Your task to perform on an android device: Set the phone to "Do not disturb". Image 0: 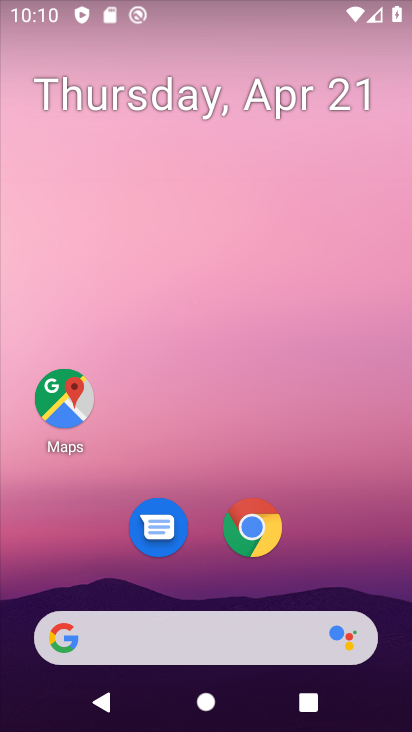
Step 0: drag from (210, 679) to (207, 108)
Your task to perform on an android device: Set the phone to "Do not disturb". Image 1: 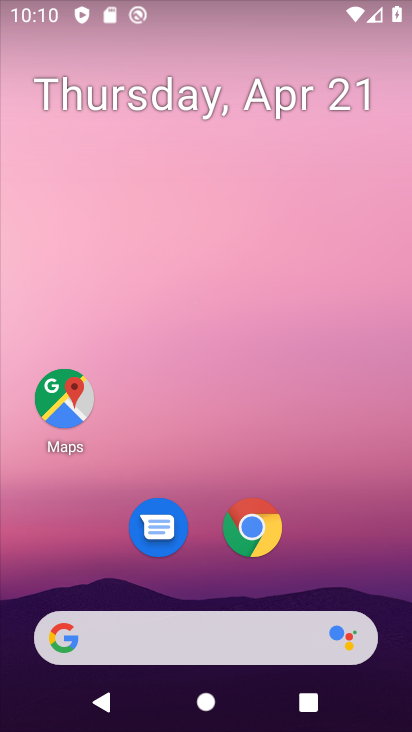
Step 1: drag from (215, 708) to (216, 126)
Your task to perform on an android device: Set the phone to "Do not disturb". Image 2: 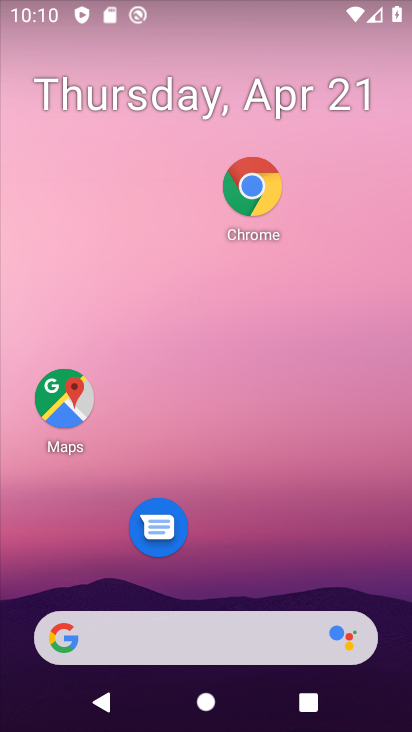
Step 2: drag from (208, 722) to (198, 219)
Your task to perform on an android device: Set the phone to "Do not disturb". Image 3: 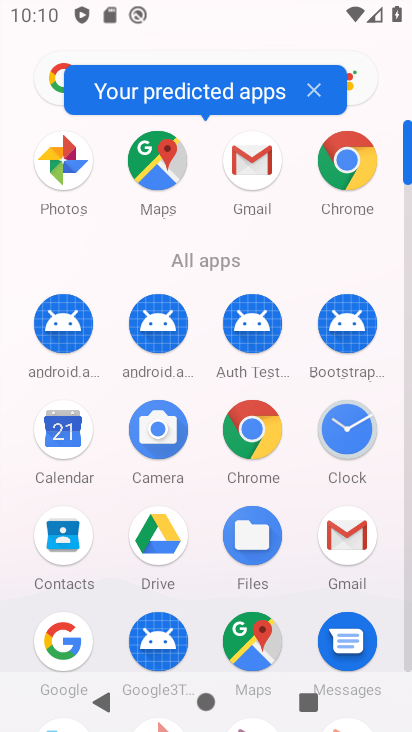
Step 3: drag from (298, 627) to (294, 337)
Your task to perform on an android device: Set the phone to "Do not disturb". Image 4: 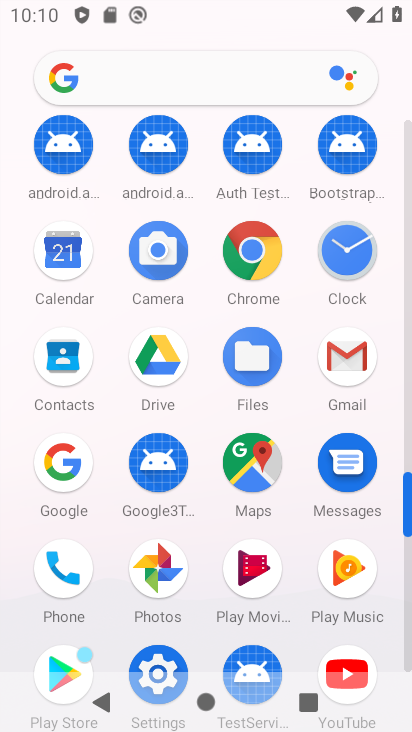
Step 4: drag from (189, 635) to (195, 251)
Your task to perform on an android device: Set the phone to "Do not disturb". Image 5: 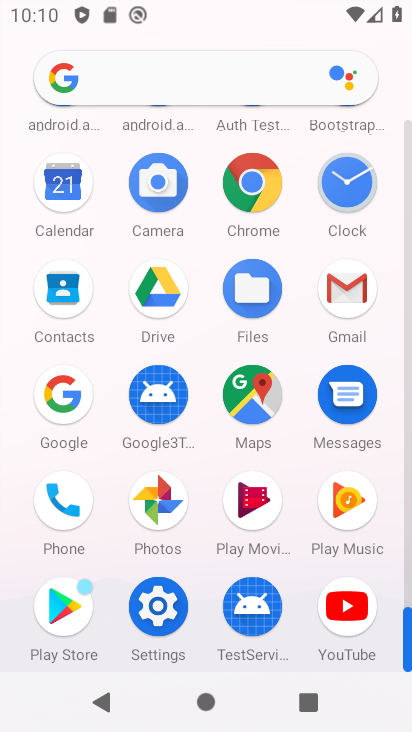
Step 5: click (159, 608)
Your task to perform on an android device: Set the phone to "Do not disturb". Image 6: 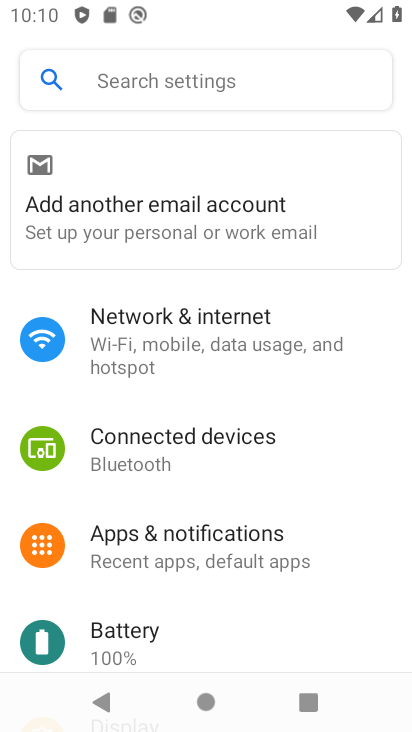
Step 6: drag from (201, 647) to (195, 296)
Your task to perform on an android device: Set the phone to "Do not disturb". Image 7: 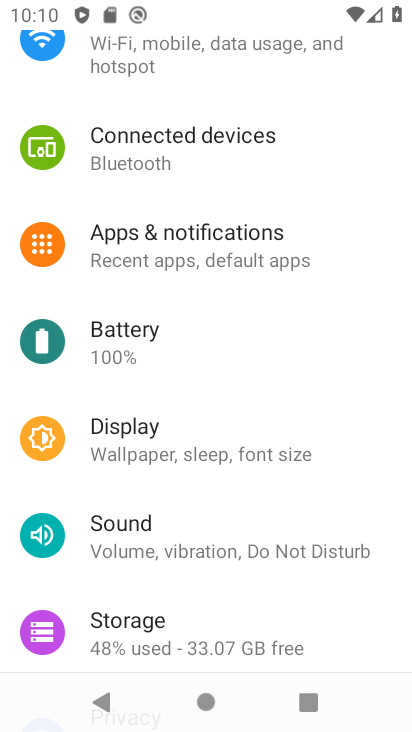
Step 7: click (246, 555)
Your task to perform on an android device: Set the phone to "Do not disturb". Image 8: 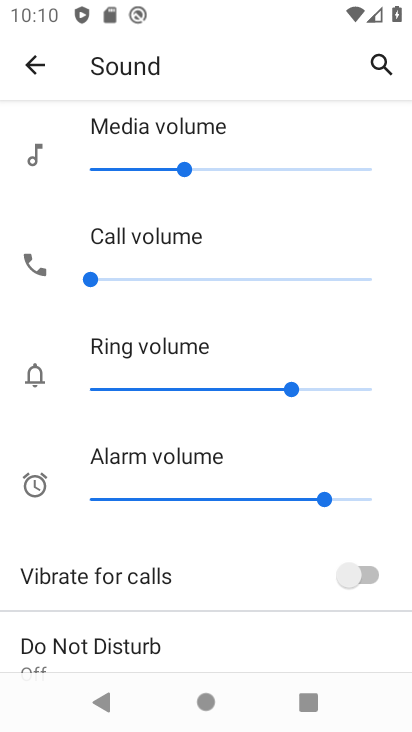
Step 8: click (167, 644)
Your task to perform on an android device: Set the phone to "Do not disturb". Image 9: 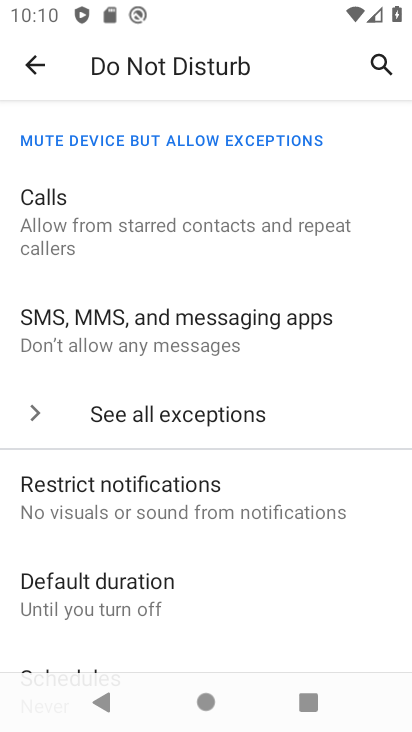
Step 9: drag from (170, 626) to (164, 296)
Your task to perform on an android device: Set the phone to "Do not disturb". Image 10: 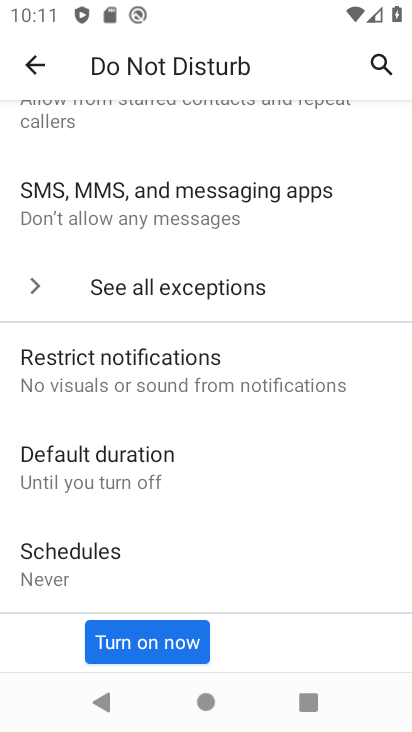
Step 10: click (158, 636)
Your task to perform on an android device: Set the phone to "Do not disturb". Image 11: 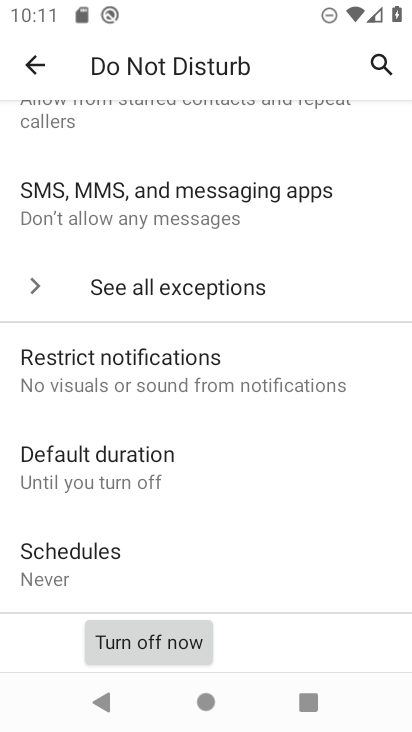
Step 11: task complete